Your task to perform on an android device: What's the weather? Image 0: 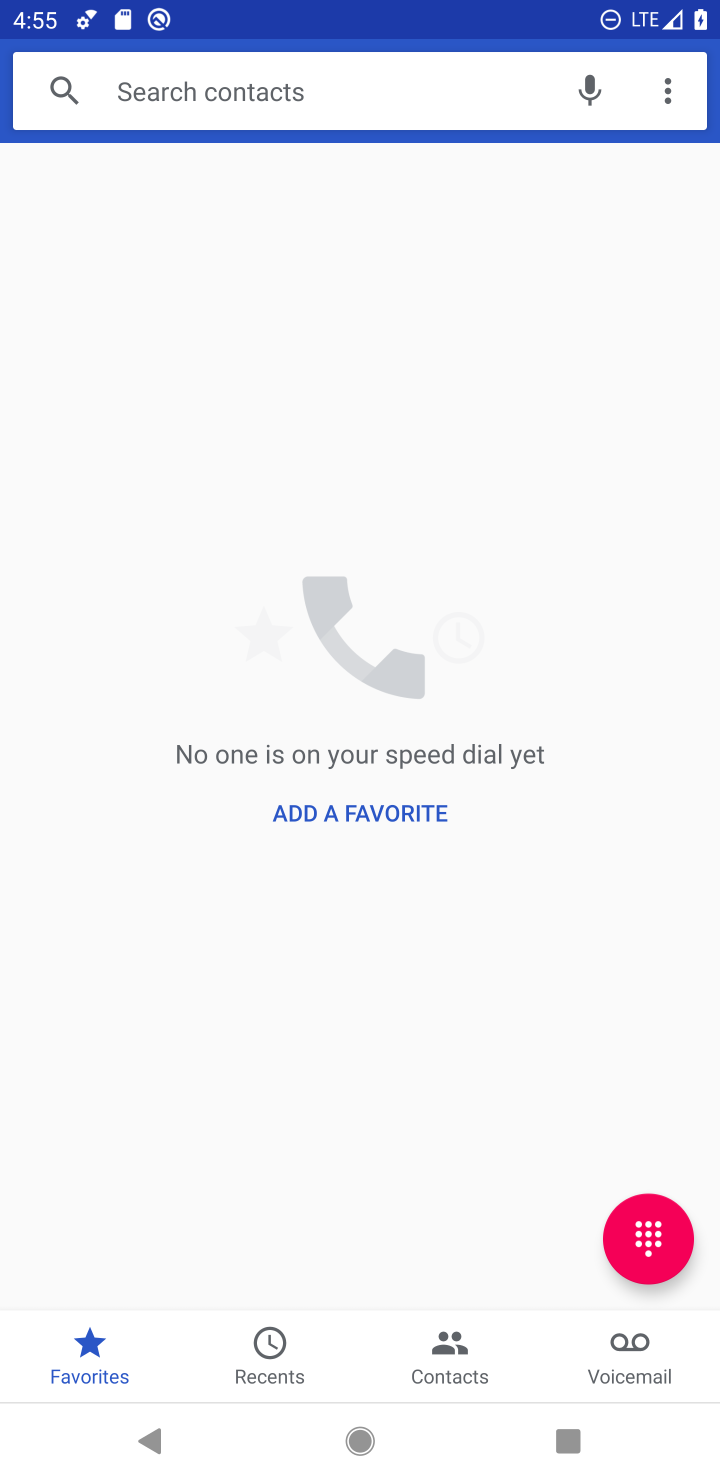
Step 0: press back button
Your task to perform on an android device: What's the weather? Image 1: 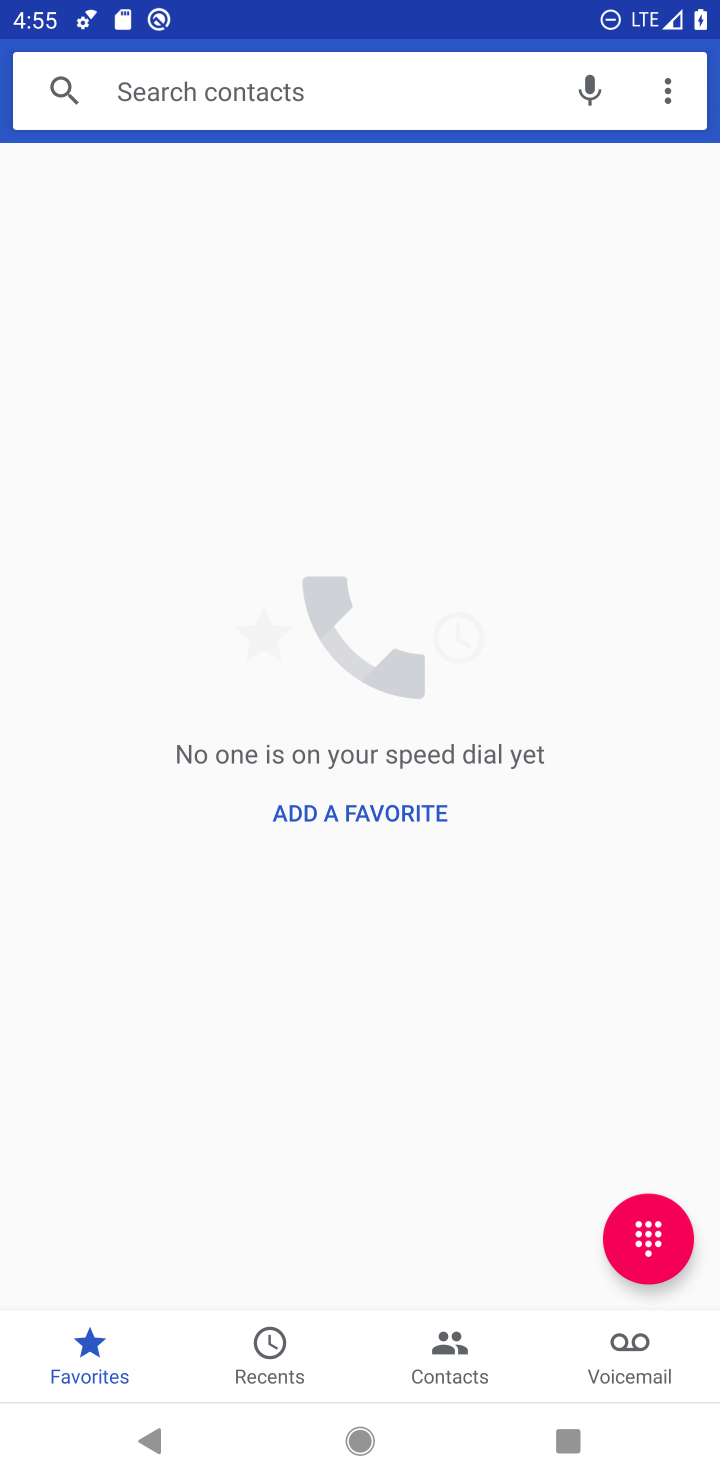
Step 1: press back button
Your task to perform on an android device: What's the weather? Image 2: 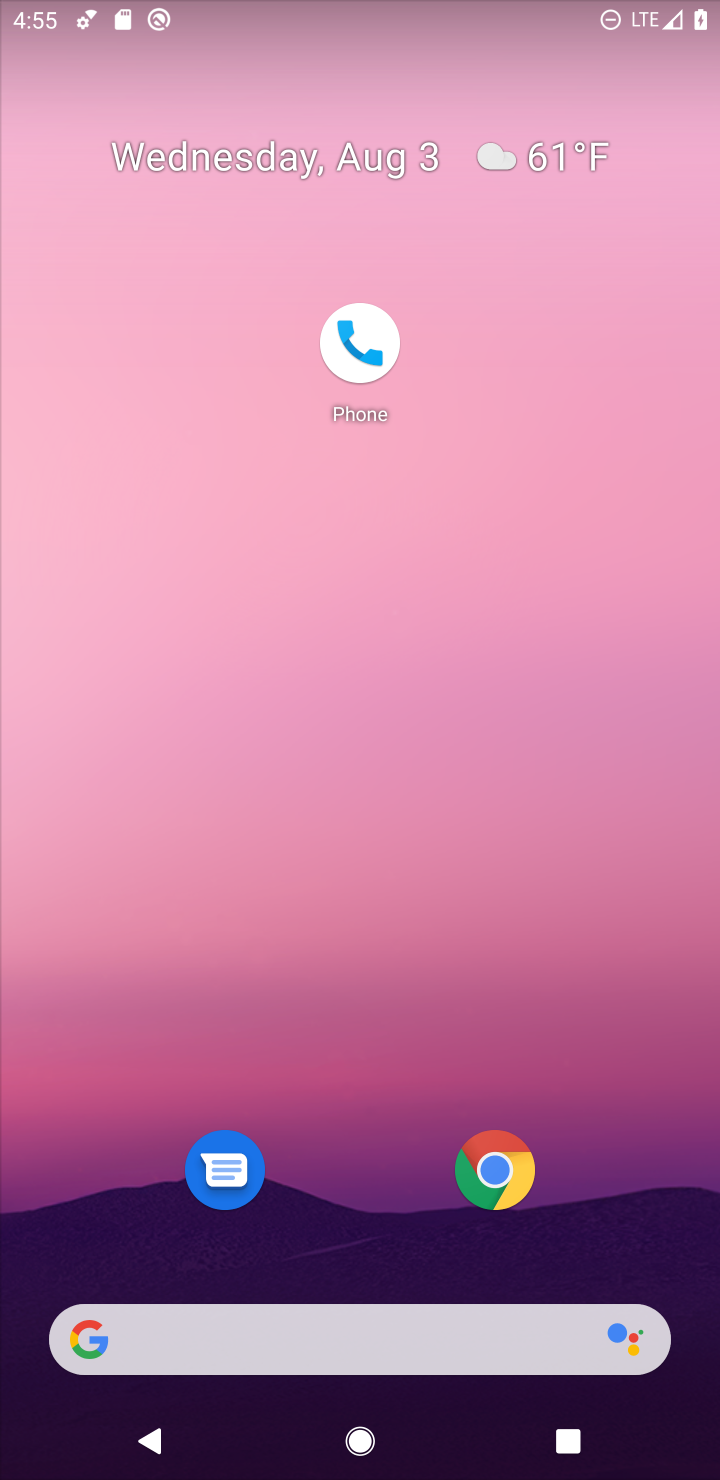
Step 2: click (347, 1343)
Your task to perform on an android device: What's the weather? Image 3: 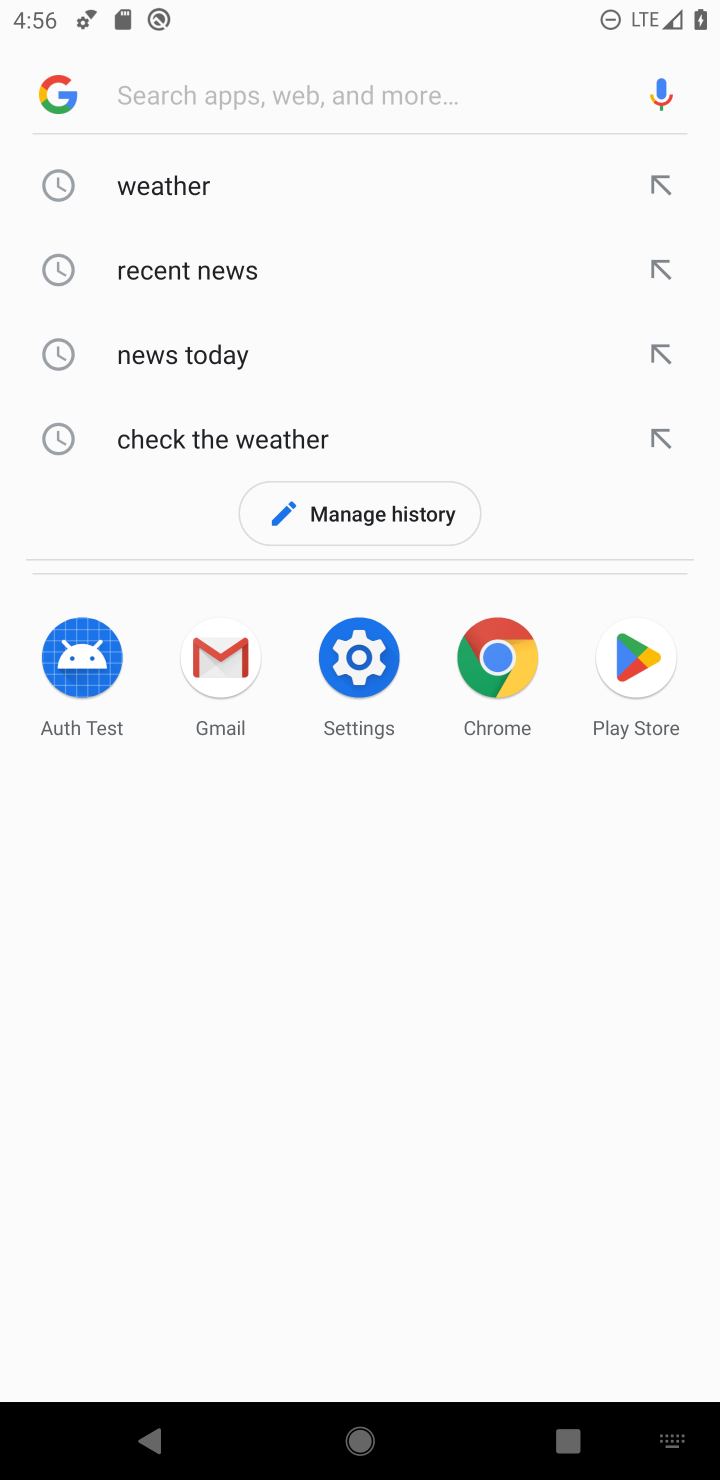
Step 3: click (149, 189)
Your task to perform on an android device: What's the weather? Image 4: 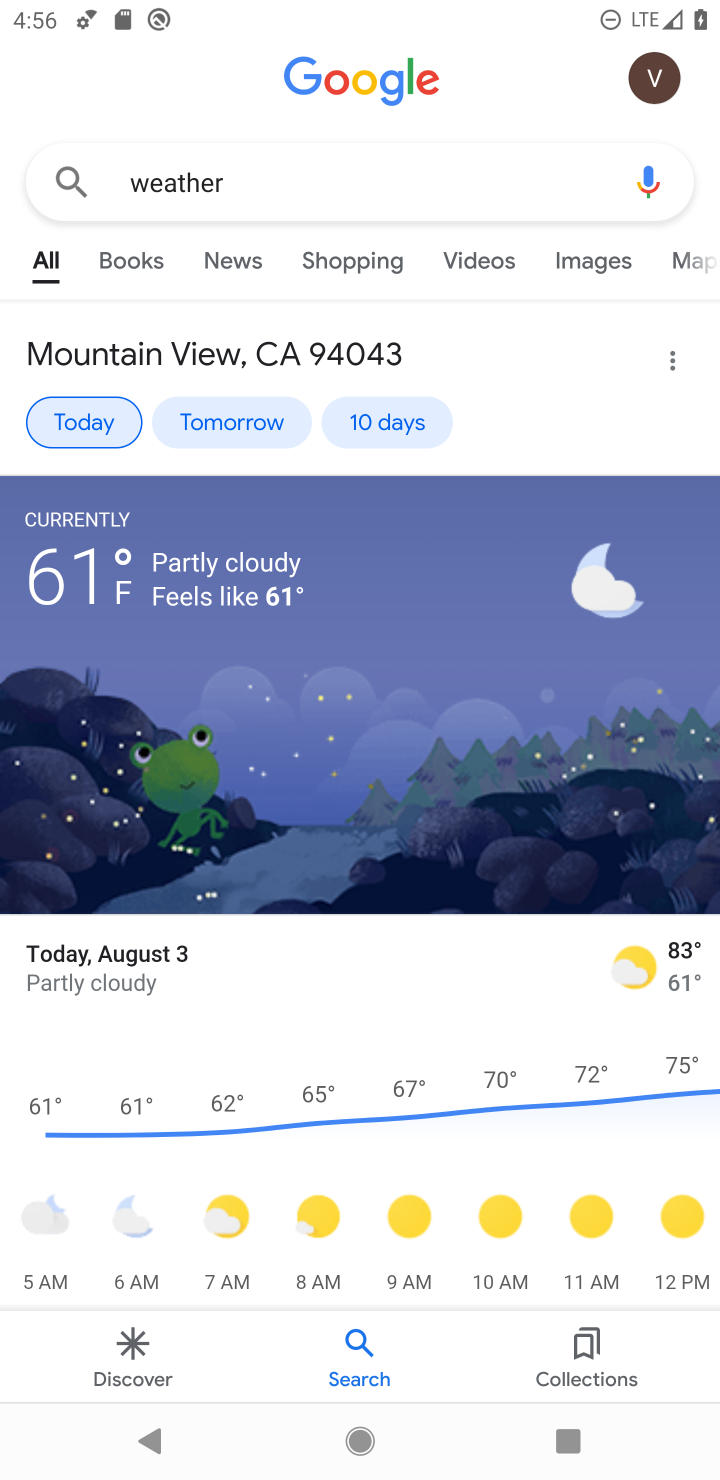
Step 4: task complete